Your task to perform on an android device: all mails in gmail Image 0: 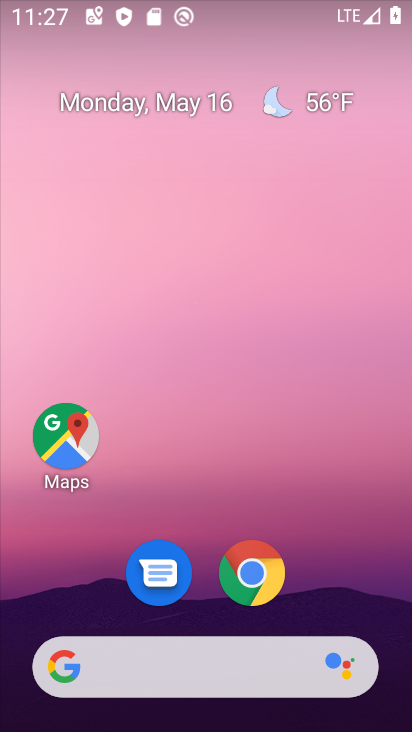
Step 0: drag from (254, 638) to (335, 58)
Your task to perform on an android device: all mails in gmail Image 1: 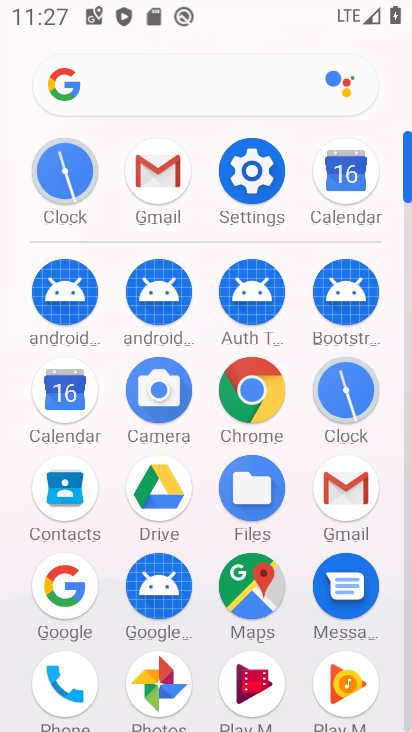
Step 1: click (172, 168)
Your task to perform on an android device: all mails in gmail Image 2: 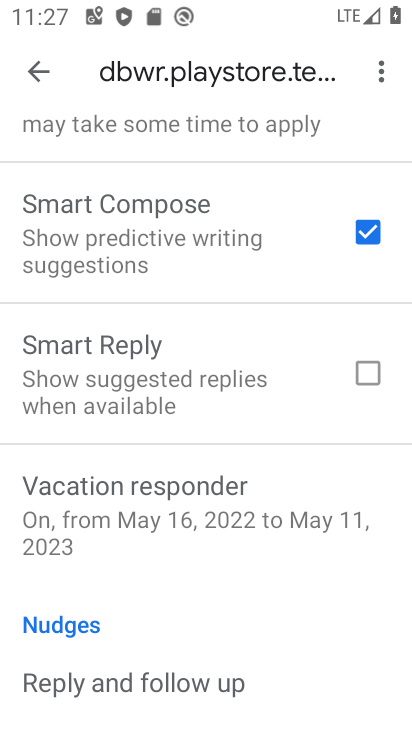
Step 2: click (42, 82)
Your task to perform on an android device: all mails in gmail Image 3: 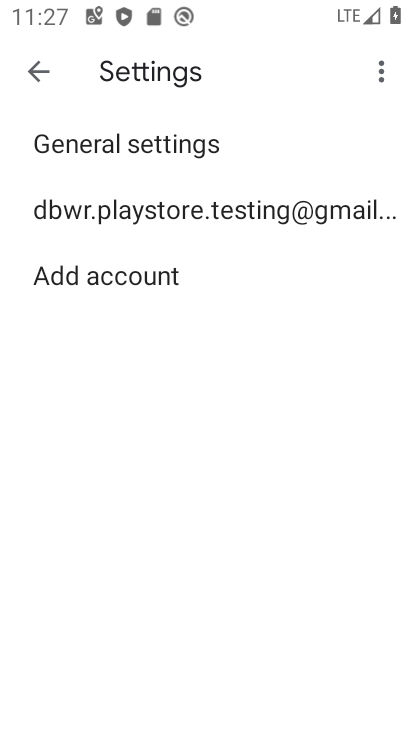
Step 3: click (165, 231)
Your task to perform on an android device: all mails in gmail Image 4: 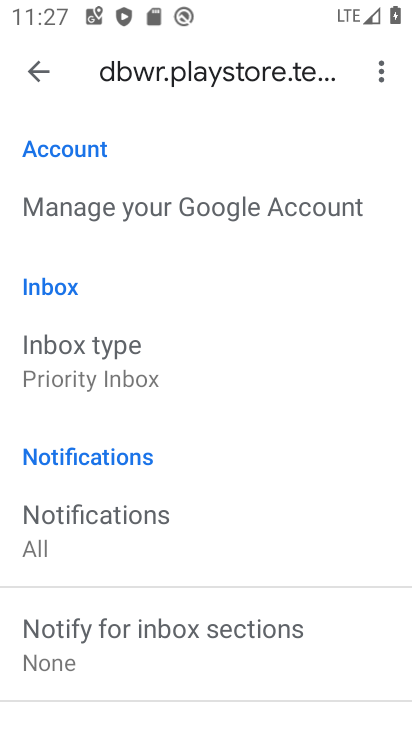
Step 4: click (22, 71)
Your task to perform on an android device: all mails in gmail Image 5: 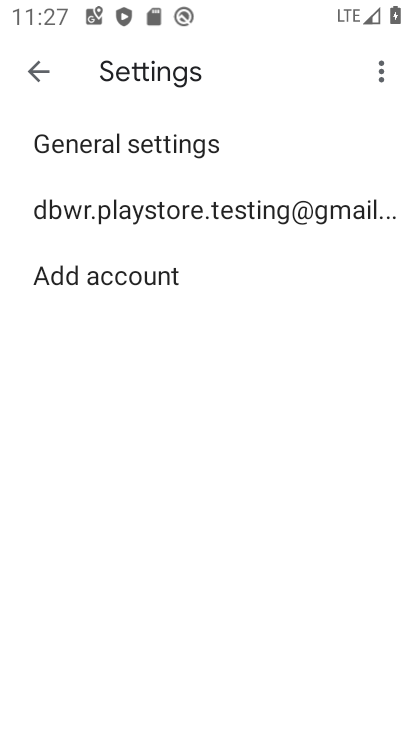
Step 5: click (39, 74)
Your task to perform on an android device: all mails in gmail Image 6: 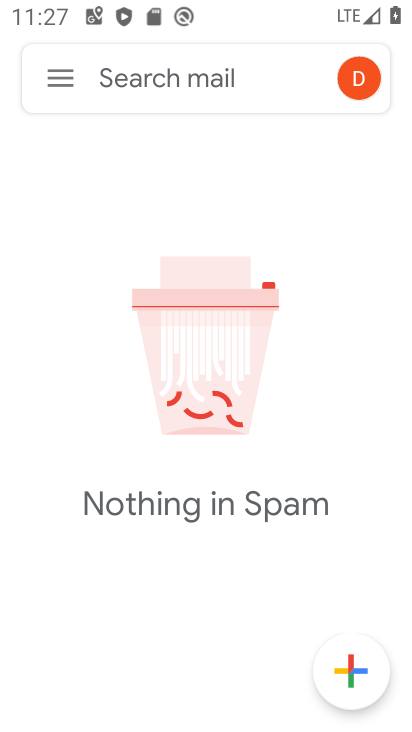
Step 6: click (71, 78)
Your task to perform on an android device: all mails in gmail Image 7: 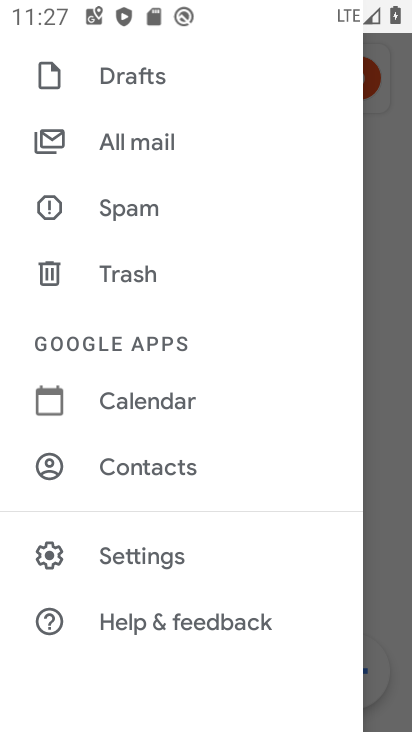
Step 7: click (204, 148)
Your task to perform on an android device: all mails in gmail Image 8: 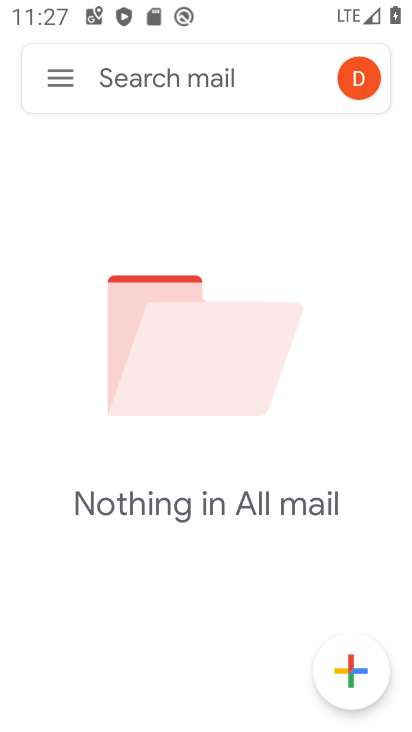
Step 8: task complete